Your task to perform on an android device: Open ESPN.com Image 0: 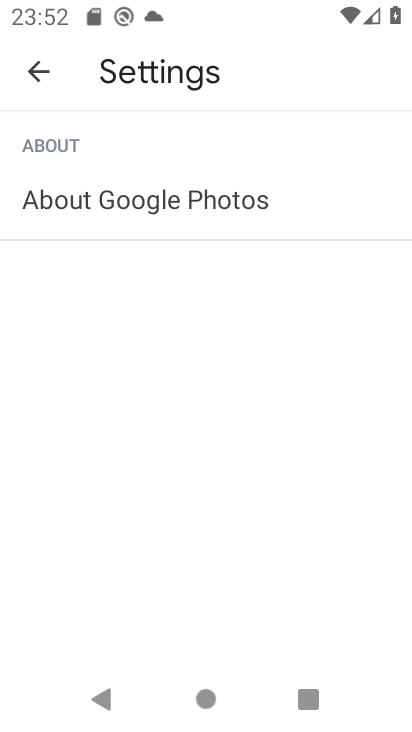
Step 0: press home button
Your task to perform on an android device: Open ESPN.com Image 1: 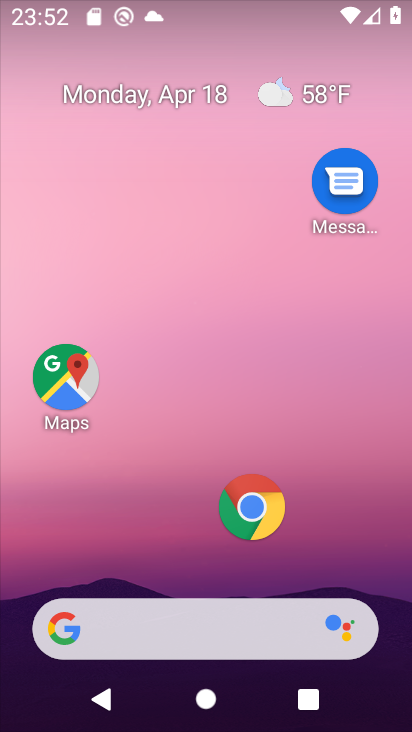
Step 1: click (261, 494)
Your task to perform on an android device: Open ESPN.com Image 2: 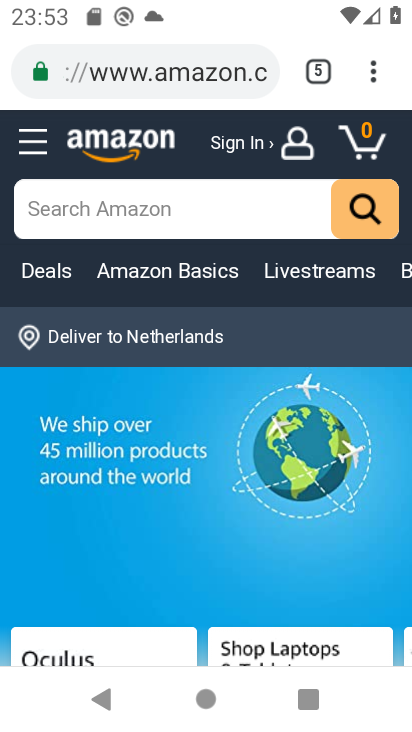
Step 2: click (203, 67)
Your task to perform on an android device: Open ESPN.com Image 3: 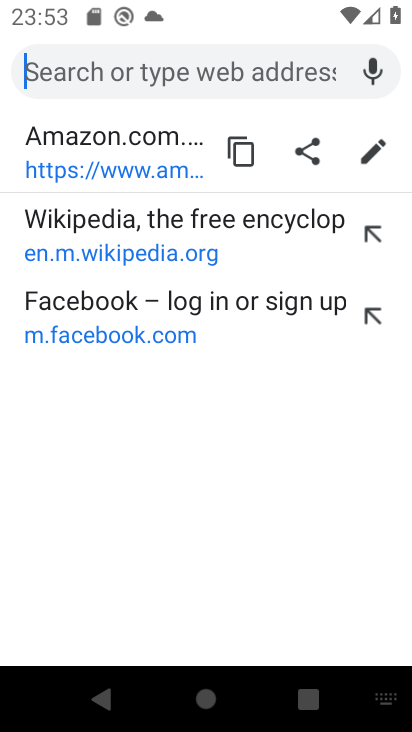
Step 3: type "ESPN.com"
Your task to perform on an android device: Open ESPN.com Image 4: 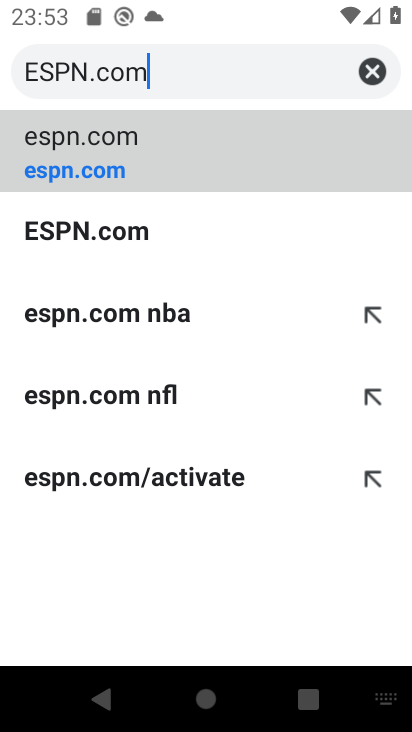
Step 4: click (88, 169)
Your task to perform on an android device: Open ESPN.com Image 5: 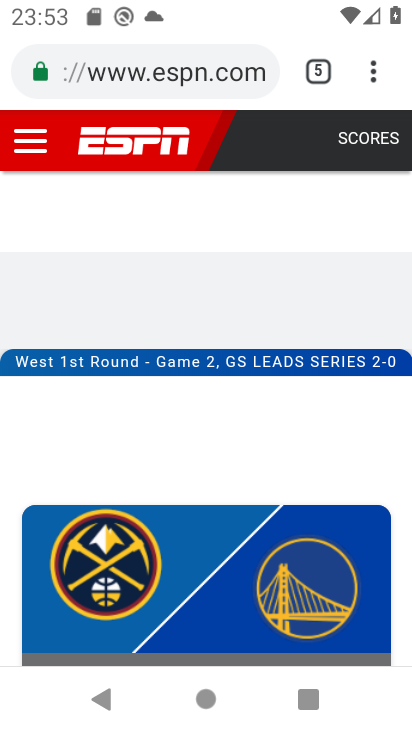
Step 5: task complete